Your task to perform on an android device: turn on the 24-hour format for clock Image 0: 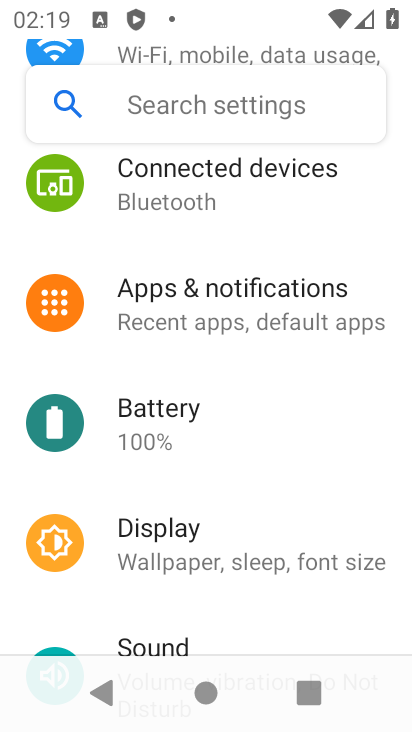
Step 0: press home button
Your task to perform on an android device: turn on the 24-hour format for clock Image 1: 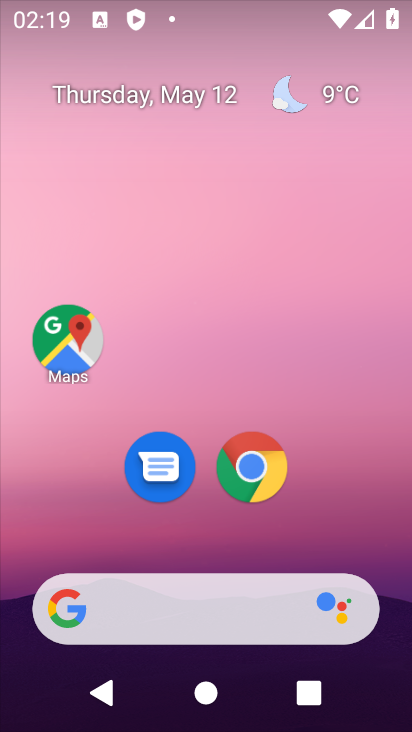
Step 1: drag from (300, 529) to (315, 272)
Your task to perform on an android device: turn on the 24-hour format for clock Image 2: 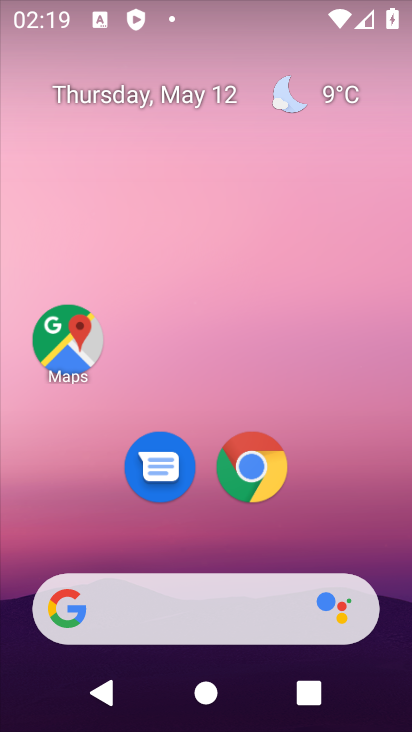
Step 2: drag from (327, 427) to (317, 267)
Your task to perform on an android device: turn on the 24-hour format for clock Image 3: 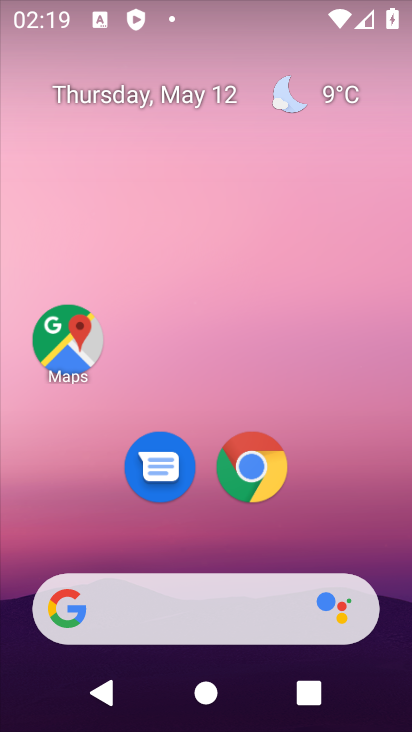
Step 3: drag from (257, 527) to (274, 271)
Your task to perform on an android device: turn on the 24-hour format for clock Image 4: 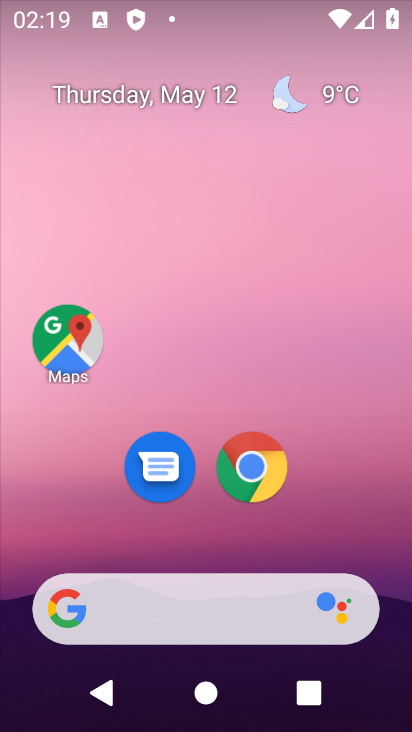
Step 4: drag from (230, 548) to (283, 146)
Your task to perform on an android device: turn on the 24-hour format for clock Image 5: 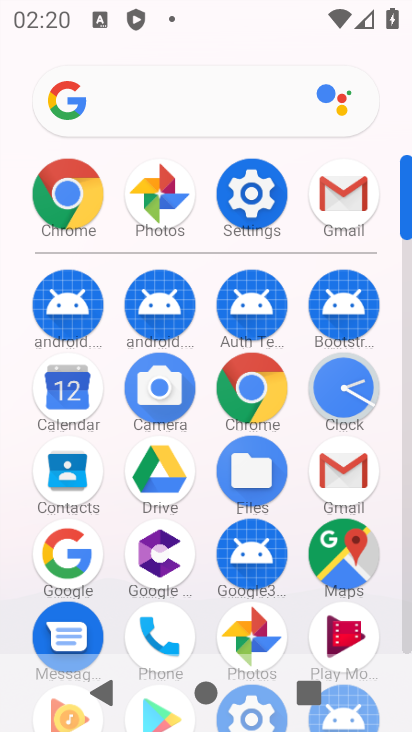
Step 5: click (331, 375)
Your task to perform on an android device: turn on the 24-hour format for clock Image 6: 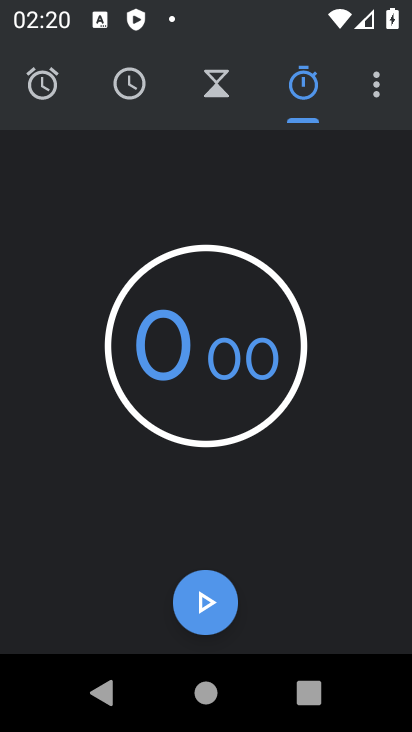
Step 6: click (360, 85)
Your task to perform on an android device: turn on the 24-hour format for clock Image 7: 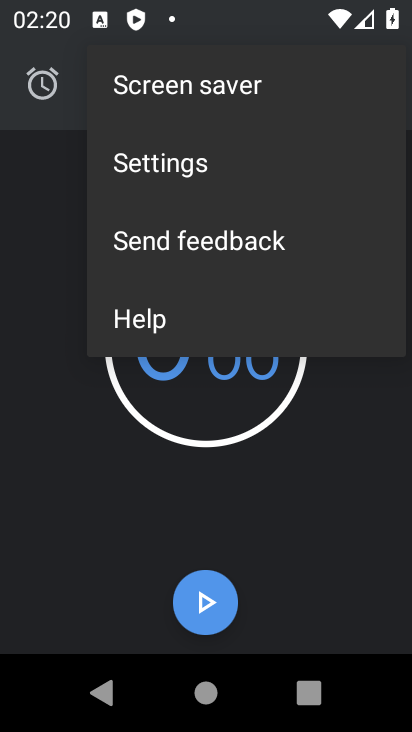
Step 7: click (167, 163)
Your task to perform on an android device: turn on the 24-hour format for clock Image 8: 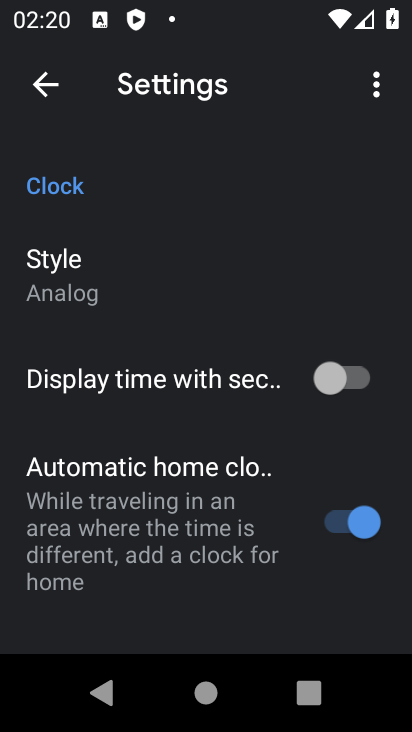
Step 8: drag from (163, 556) to (207, 263)
Your task to perform on an android device: turn on the 24-hour format for clock Image 9: 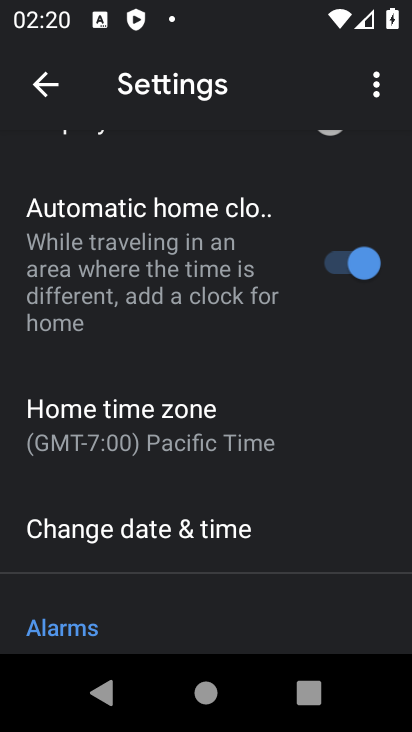
Step 9: click (124, 543)
Your task to perform on an android device: turn on the 24-hour format for clock Image 10: 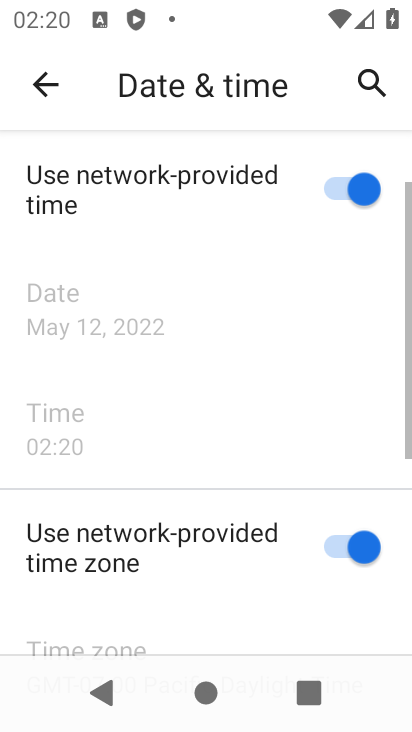
Step 10: task complete